Your task to perform on an android device: Search for pizza restaurants on Maps Image 0: 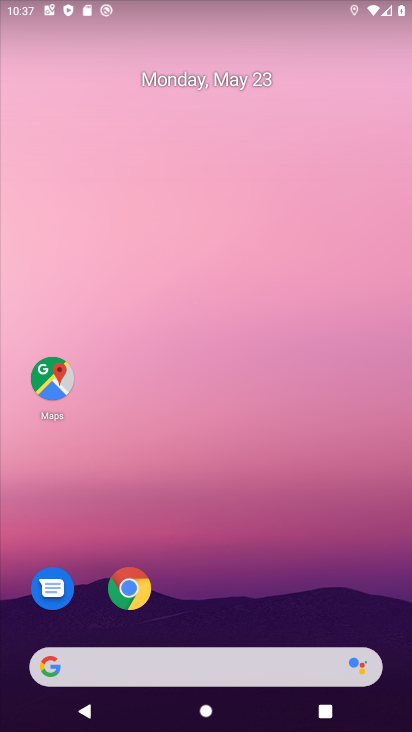
Step 0: click (135, 589)
Your task to perform on an android device: Search for pizza restaurants on Maps Image 1: 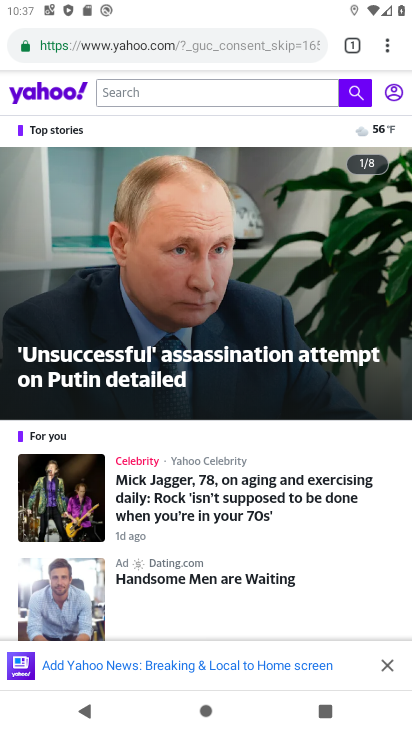
Step 1: drag from (390, 38) to (399, 545)
Your task to perform on an android device: Search for pizza restaurants on Maps Image 2: 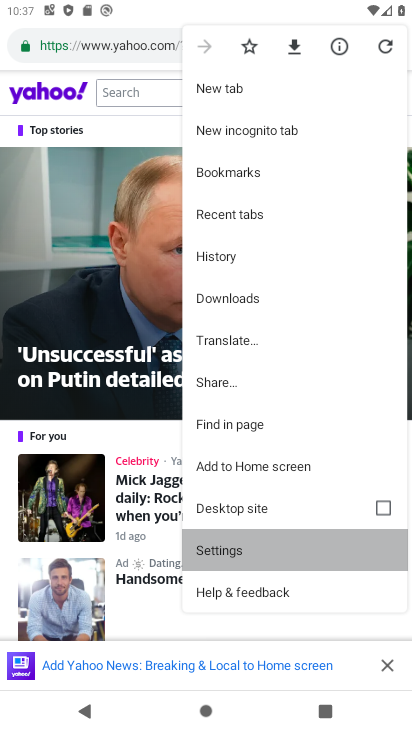
Step 2: press home button
Your task to perform on an android device: Search for pizza restaurants on Maps Image 3: 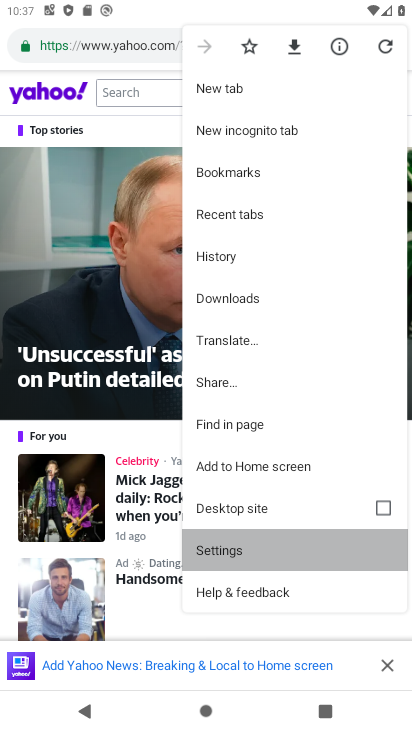
Step 3: click (407, 300)
Your task to perform on an android device: Search for pizza restaurants on Maps Image 4: 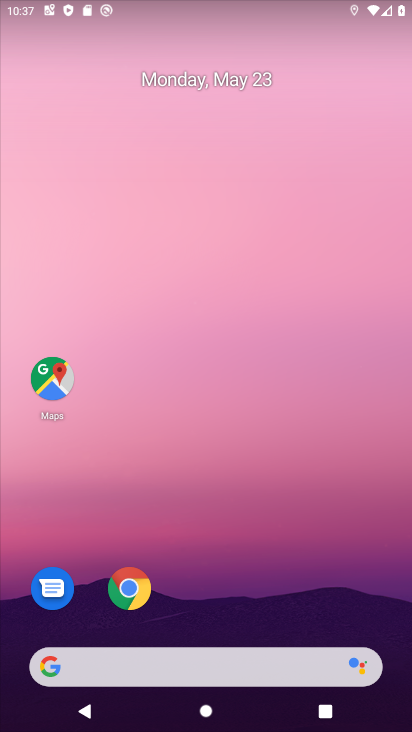
Step 4: click (42, 364)
Your task to perform on an android device: Search for pizza restaurants on Maps Image 5: 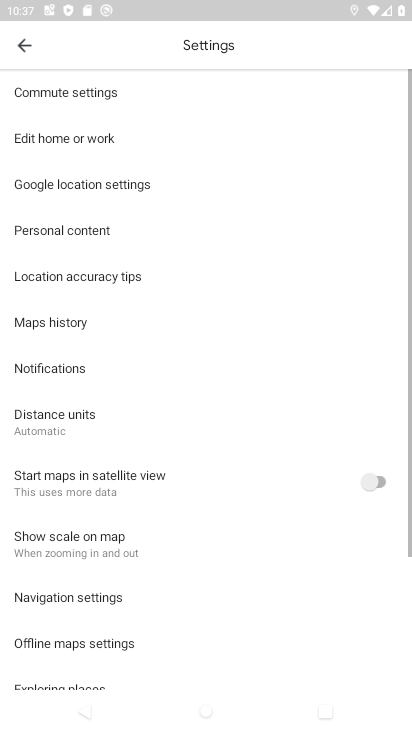
Step 5: click (32, 52)
Your task to perform on an android device: Search for pizza restaurants on Maps Image 6: 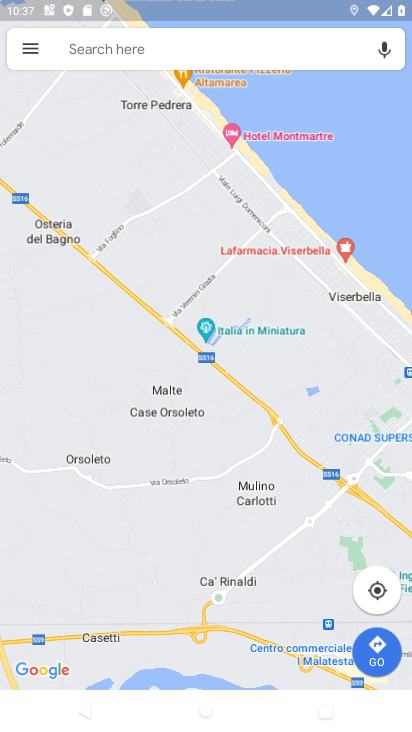
Step 6: click (162, 46)
Your task to perform on an android device: Search for pizza restaurants on Maps Image 7: 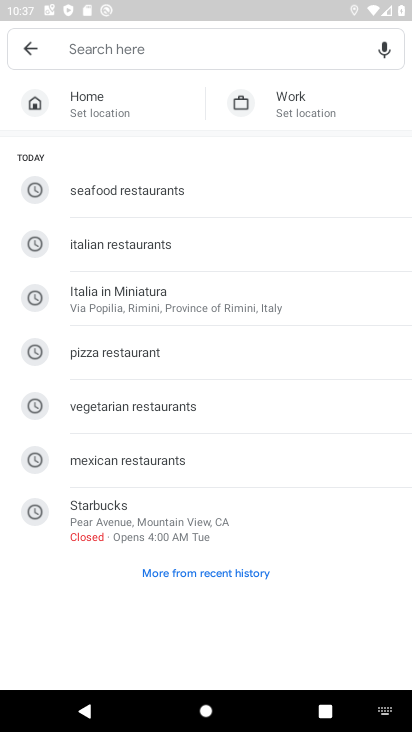
Step 7: type "pizza restaurants"
Your task to perform on an android device: Search for pizza restaurants on Maps Image 8: 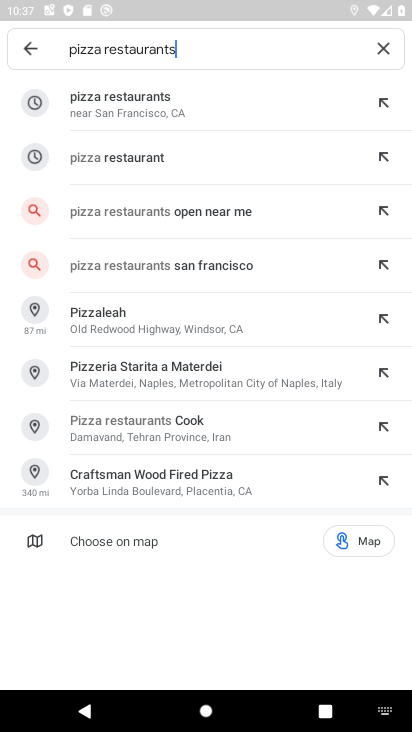
Step 8: press enter
Your task to perform on an android device: Search for pizza restaurants on Maps Image 9: 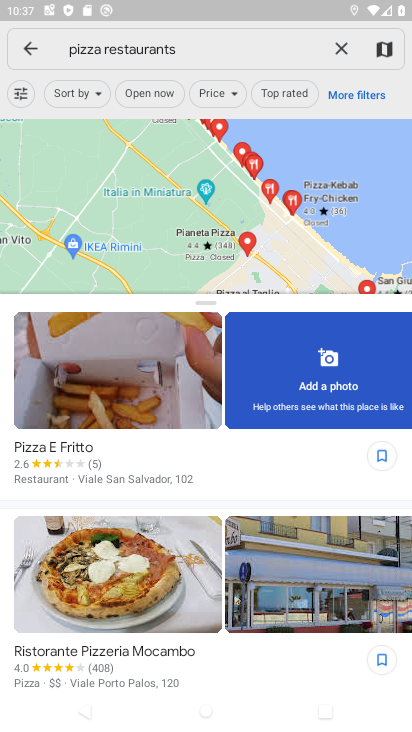
Step 9: task complete